Your task to perform on an android device: When is my next appointment? Image 0: 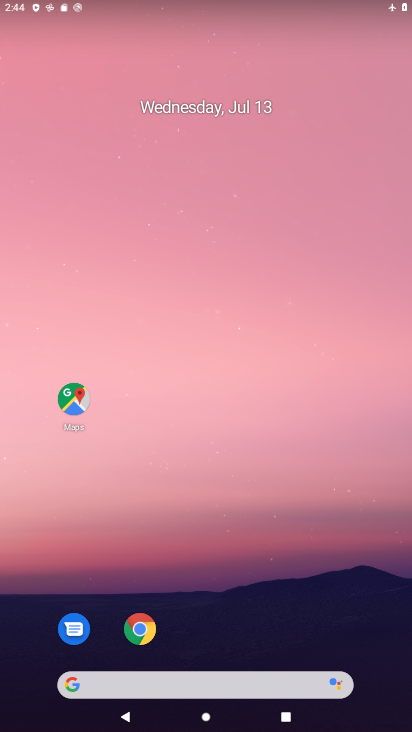
Step 0: drag from (319, 626) to (273, 1)
Your task to perform on an android device: When is my next appointment? Image 1: 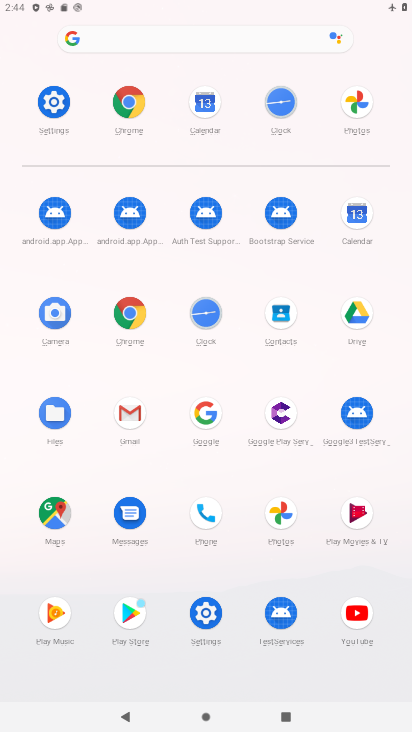
Step 1: click (60, 117)
Your task to perform on an android device: When is my next appointment? Image 2: 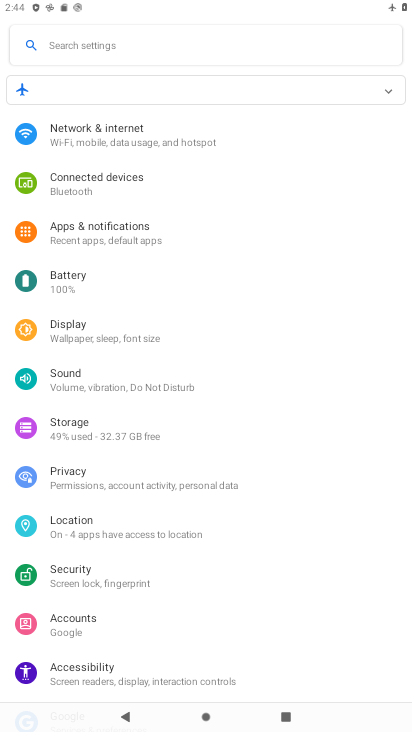
Step 2: press home button
Your task to perform on an android device: When is my next appointment? Image 3: 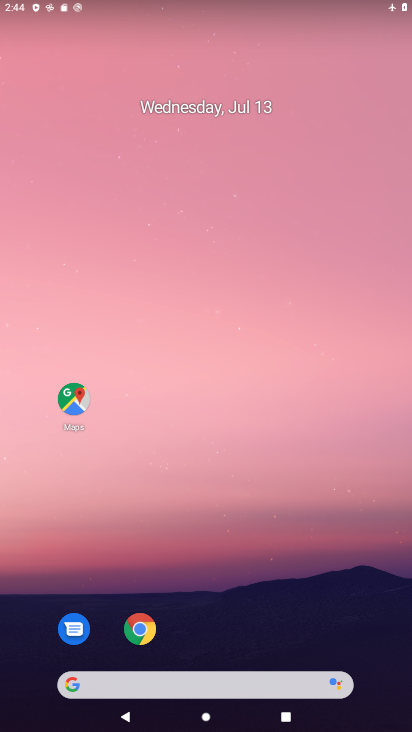
Step 3: drag from (220, 625) to (281, 239)
Your task to perform on an android device: When is my next appointment? Image 4: 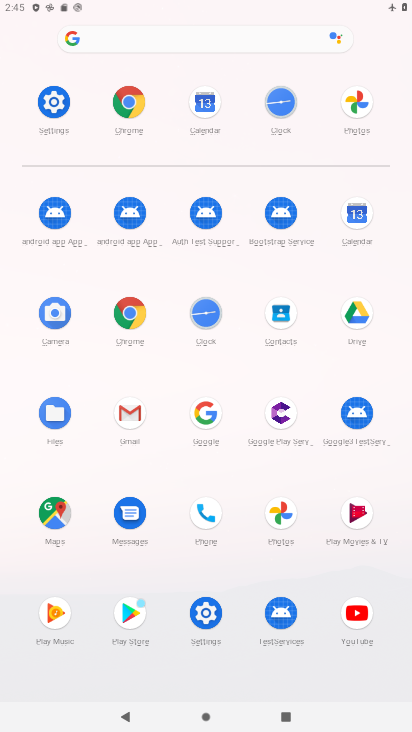
Step 4: click (218, 115)
Your task to perform on an android device: When is my next appointment? Image 5: 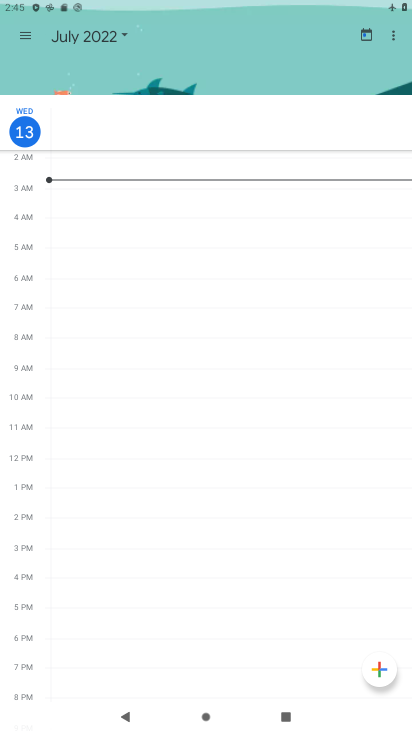
Step 5: task complete